Your task to perform on an android device: Toggle the flashlight Image 0: 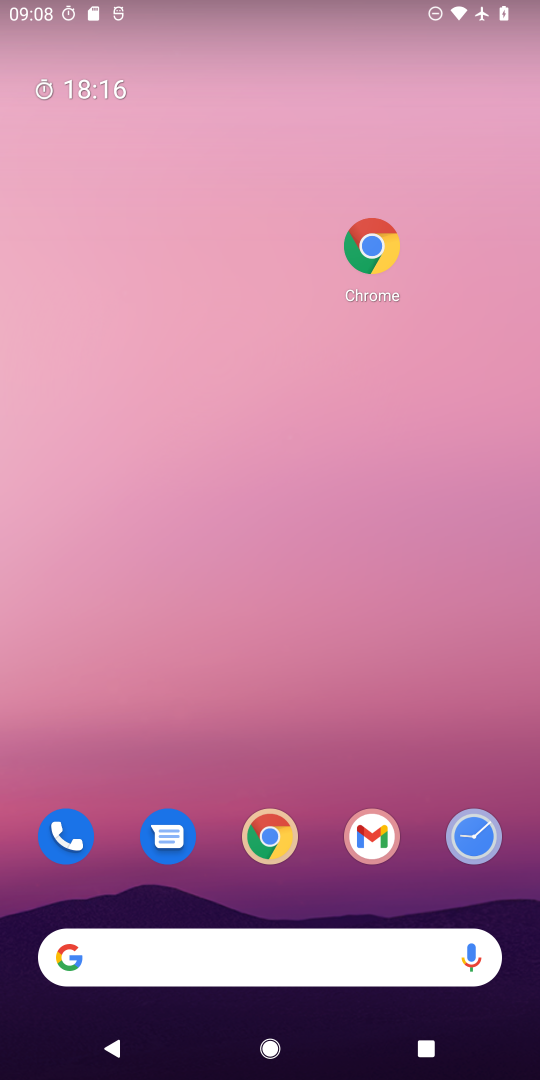
Step 0: drag from (288, 856) to (273, 314)
Your task to perform on an android device: Toggle the flashlight Image 1: 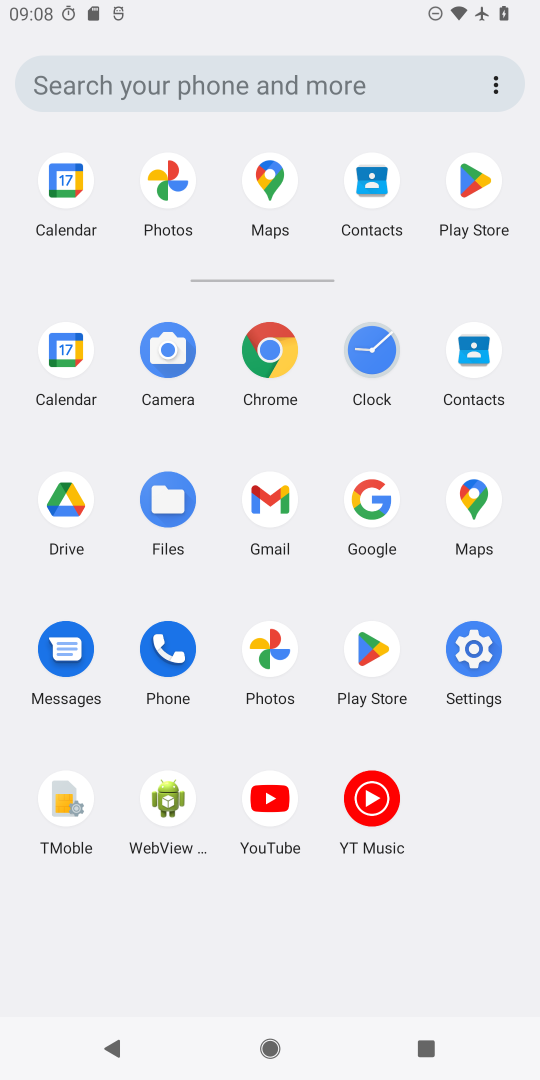
Step 1: click (496, 638)
Your task to perform on an android device: Toggle the flashlight Image 2: 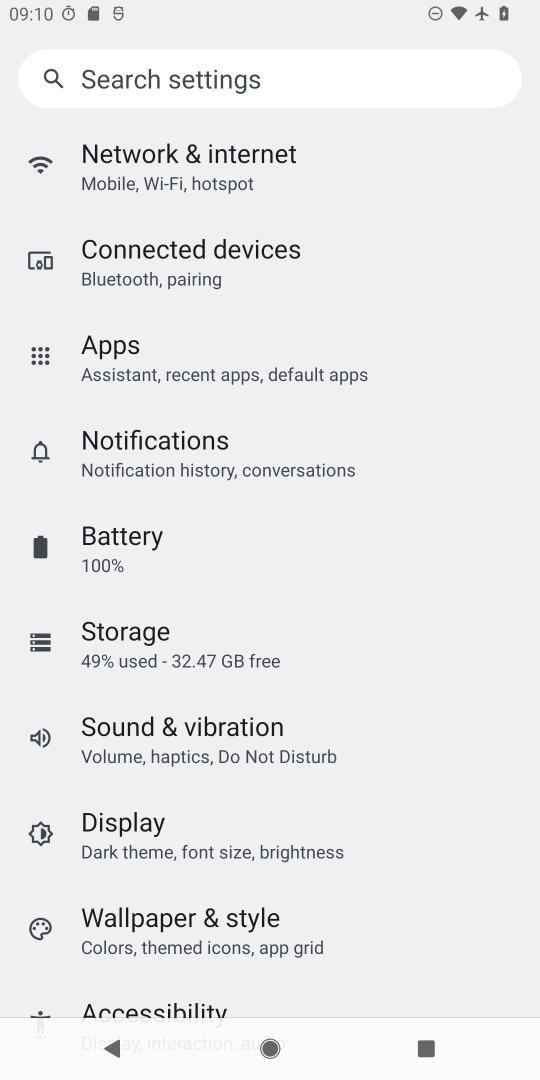
Step 2: task complete